Your task to perform on an android device: Go to CNN.com Image 0: 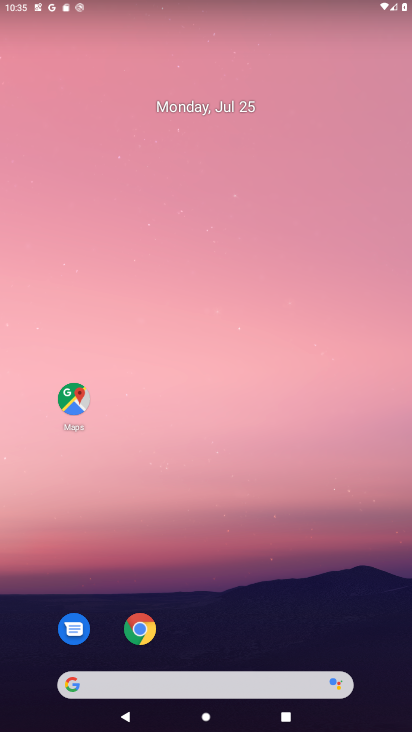
Step 0: click (146, 680)
Your task to perform on an android device: Go to CNN.com Image 1: 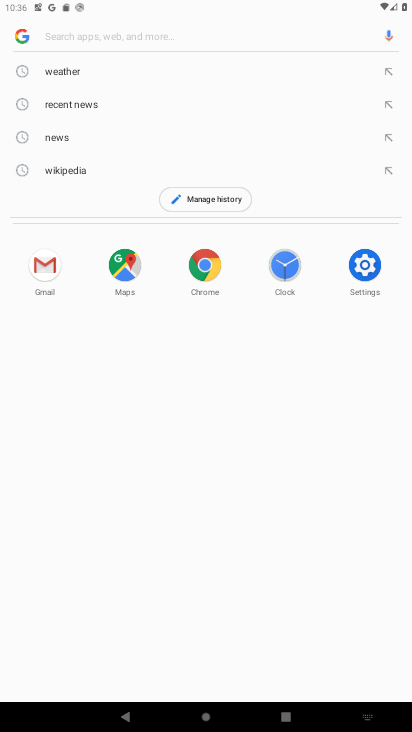
Step 1: type "cnn"
Your task to perform on an android device: Go to CNN.com Image 2: 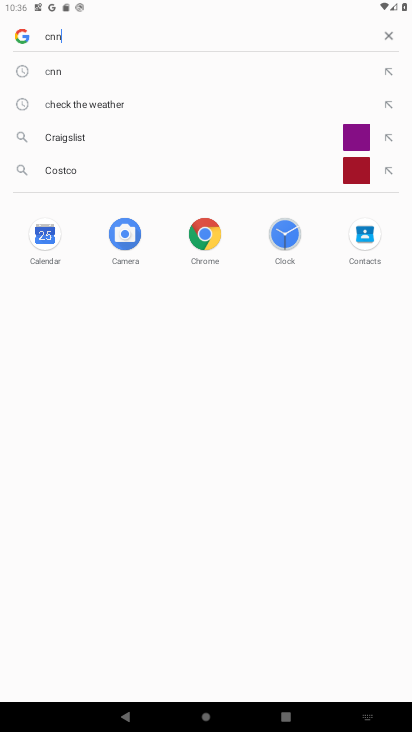
Step 2: type ""
Your task to perform on an android device: Go to CNN.com Image 3: 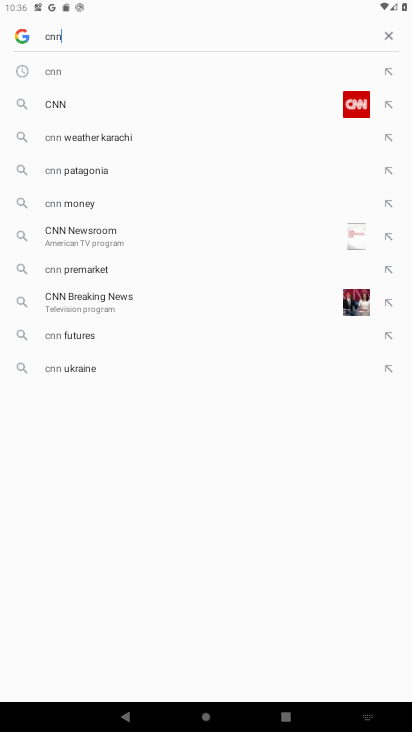
Step 3: click (98, 118)
Your task to perform on an android device: Go to CNN.com Image 4: 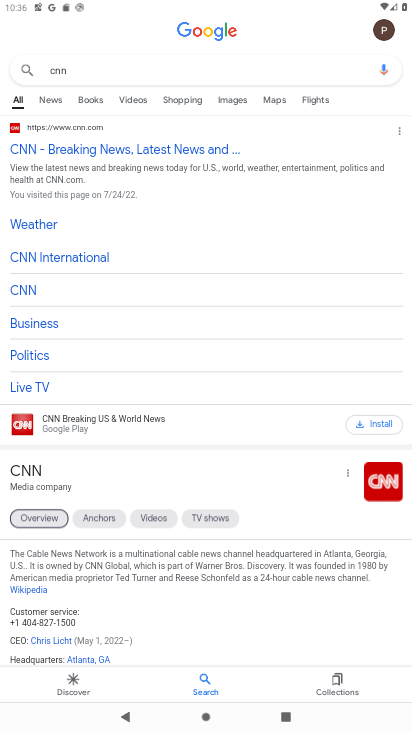
Step 4: click (44, 478)
Your task to perform on an android device: Go to CNN.com Image 5: 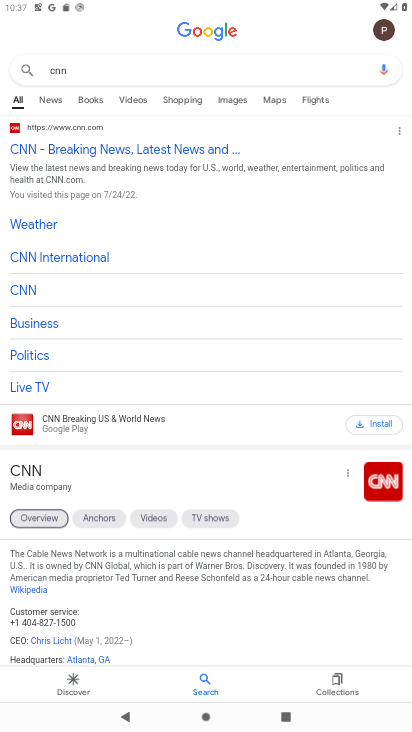
Step 5: click (52, 474)
Your task to perform on an android device: Go to CNN.com Image 6: 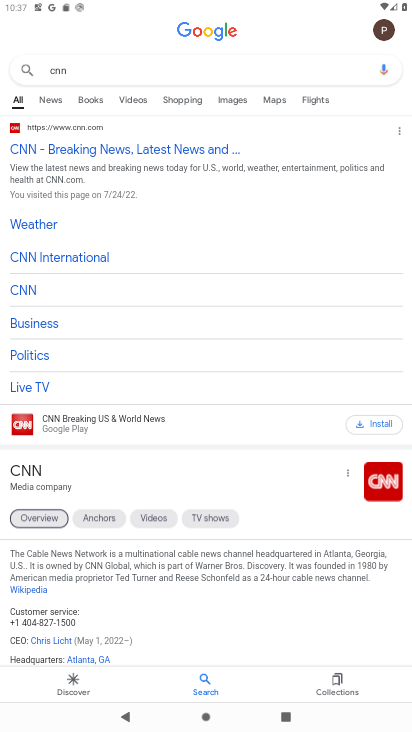
Step 6: click (62, 144)
Your task to perform on an android device: Go to CNN.com Image 7: 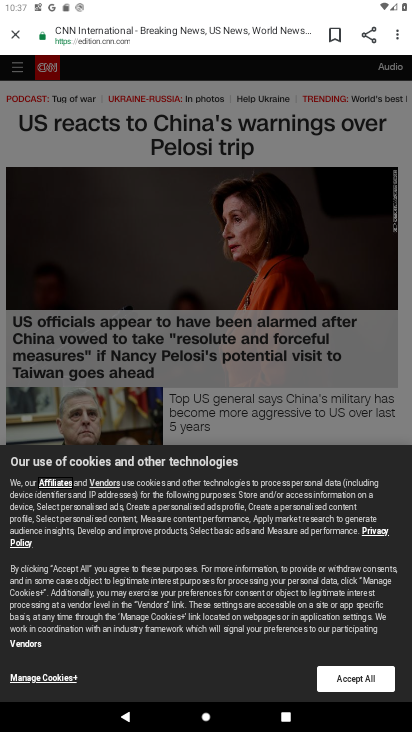
Step 7: task complete